Your task to perform on an android device: Go to settings Image 0: 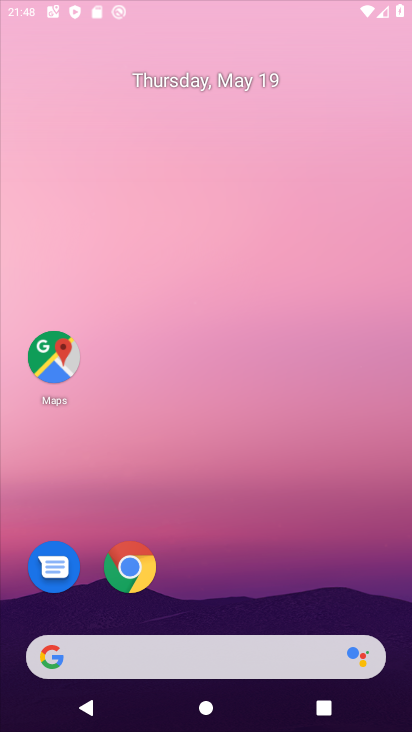
Step 0: press home button
Your task to perform on an android device: Go to settings Image 1: 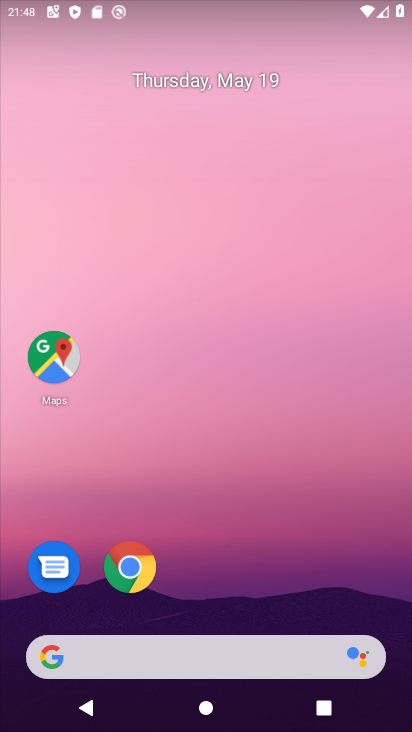
Step 1: click (127, 559)
Your task to perform on an android device: Go to settings Image 2: 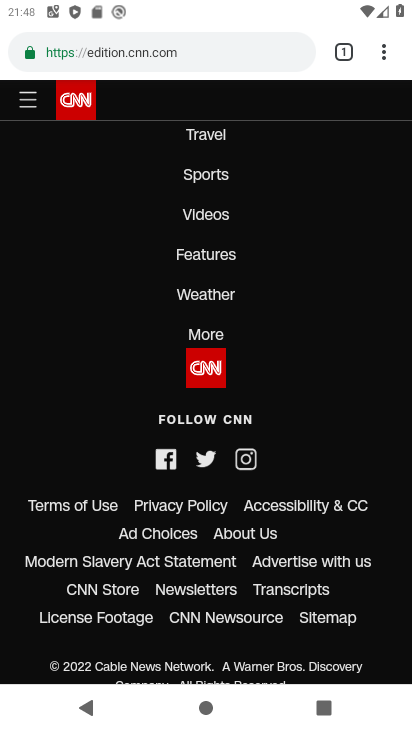
Step 2: click (347, 50)
Your task to perform on an android device: Go to settings Image 3: 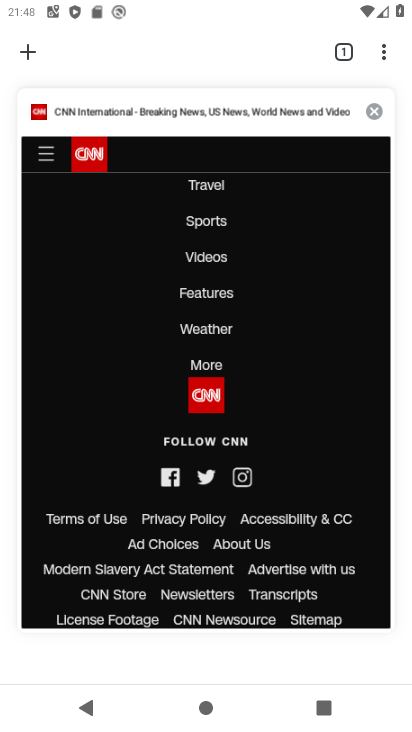
Step 3: click (372, 112)
Your task to perform on an android device: Go to settings Image 4: 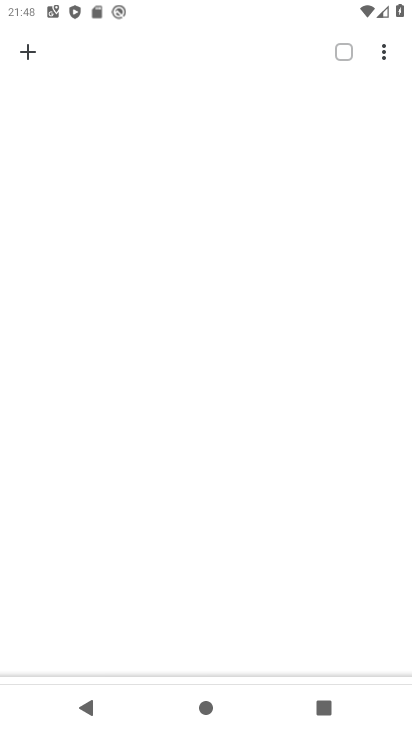
Step 4: click (25, 54)
Your task to perform on an android device: Go to settings Image 5: 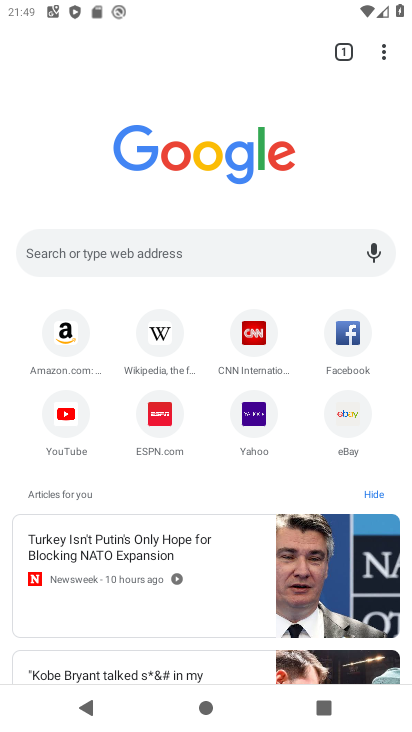
Step 5: press home button
Your task to perform on an android device: Go to settings Image 6: 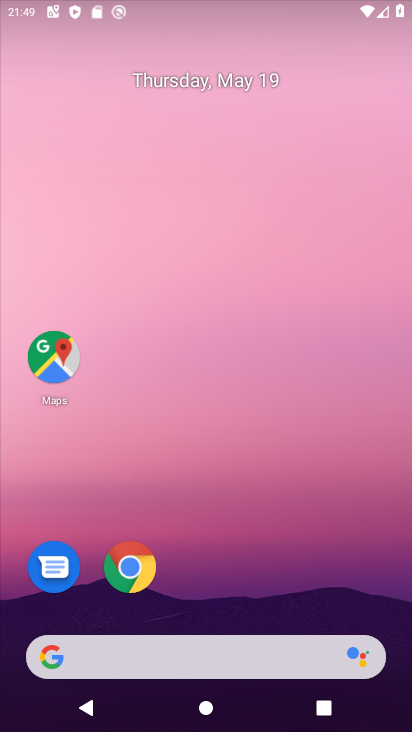
Step 6: drag from (236, 603) to (291, 131)
Your task to perform on an android device: Go to settings Image 7: 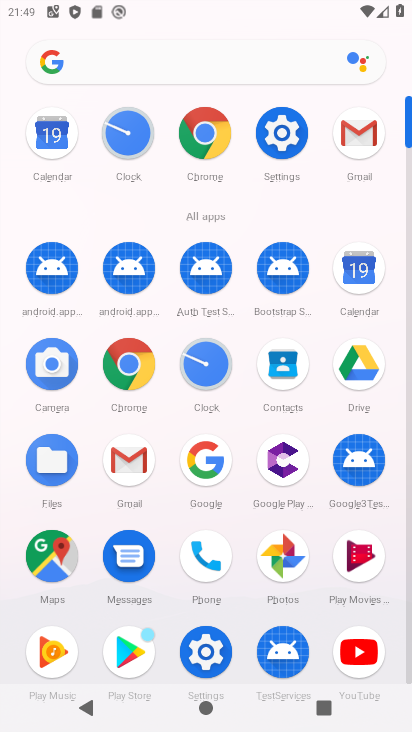
Step 7: click (291, 140)
Your task to perform on an android device: Go to settings Image 8: 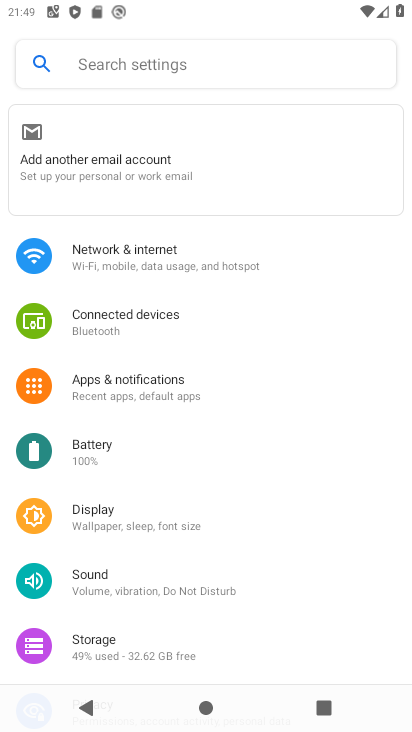
Step 8: task complete